Your task to perform on an android device: Open Google Chrome and open the bookmarks view Image 0: 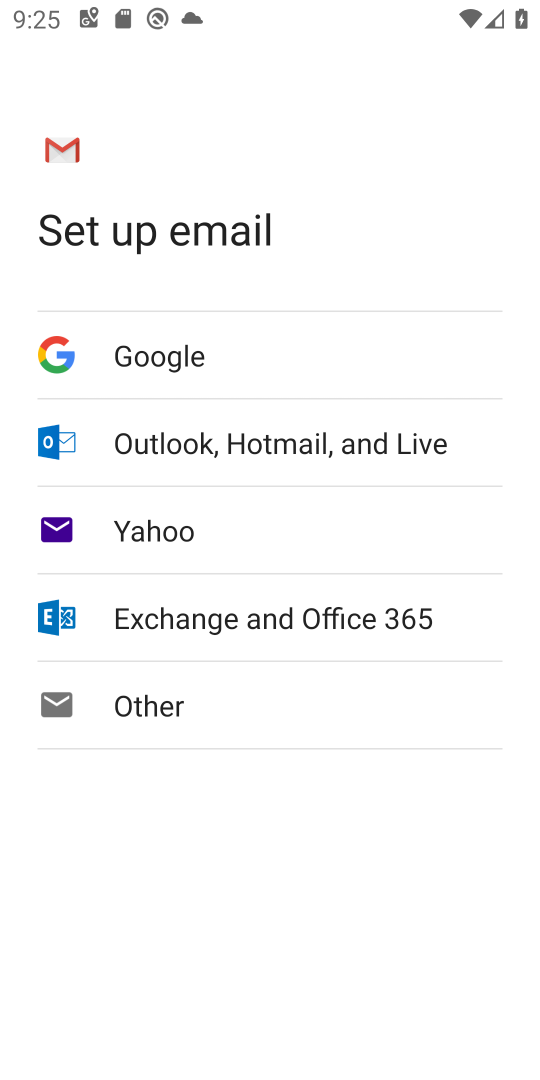
Step 0: press home button
Your task to perform on an android device: Open Google Chrome and open the bookmarks view Image 1: 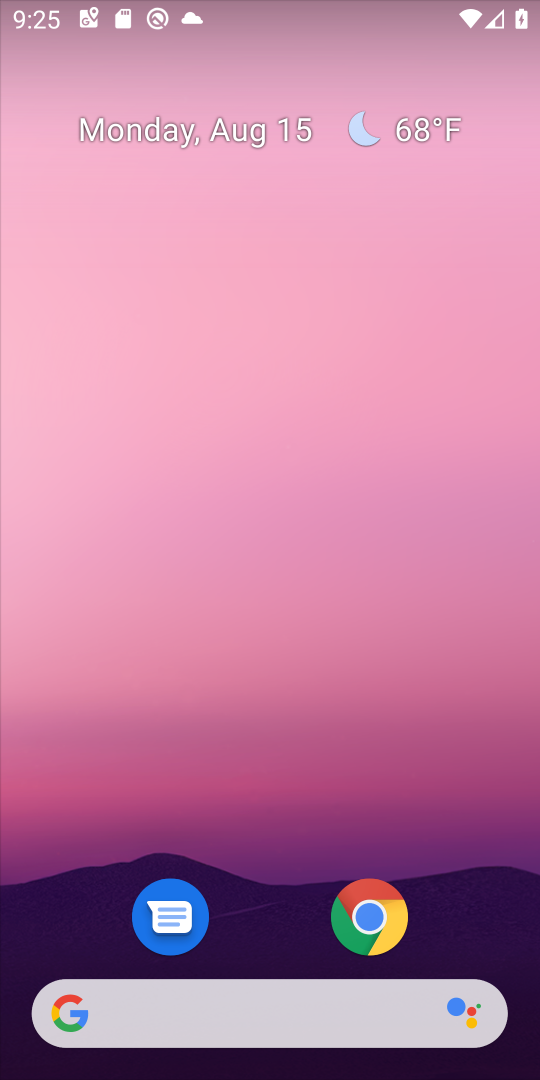
Step 1: click (375, 917)
Your task to perform on an android device: Open Google Chrome and open the bookmarks view Image 2: 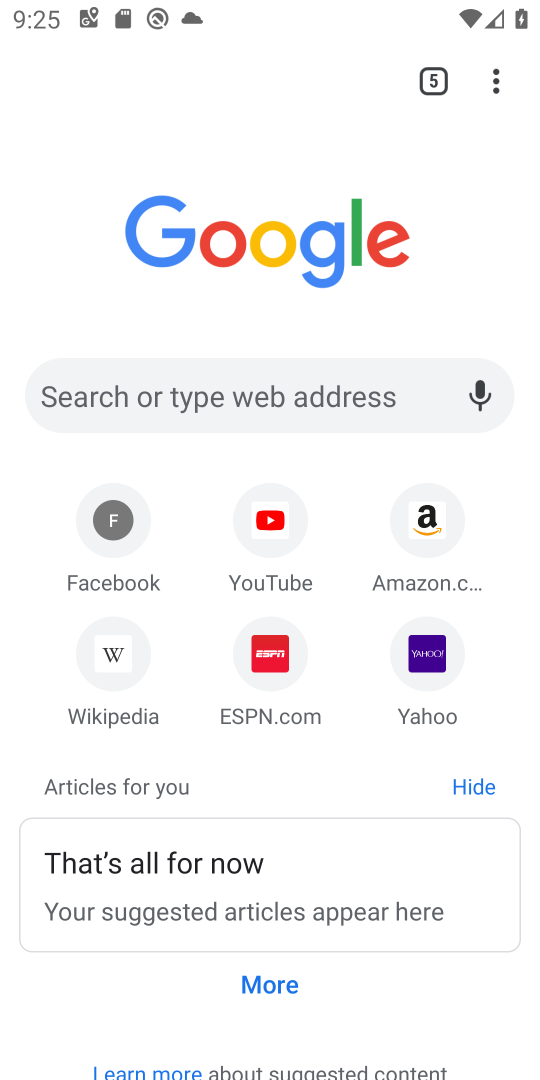
Step 2: click (499, 78)
Your task to perform on an android device: Open Google Chrome and open the bookmarks view Image 3: 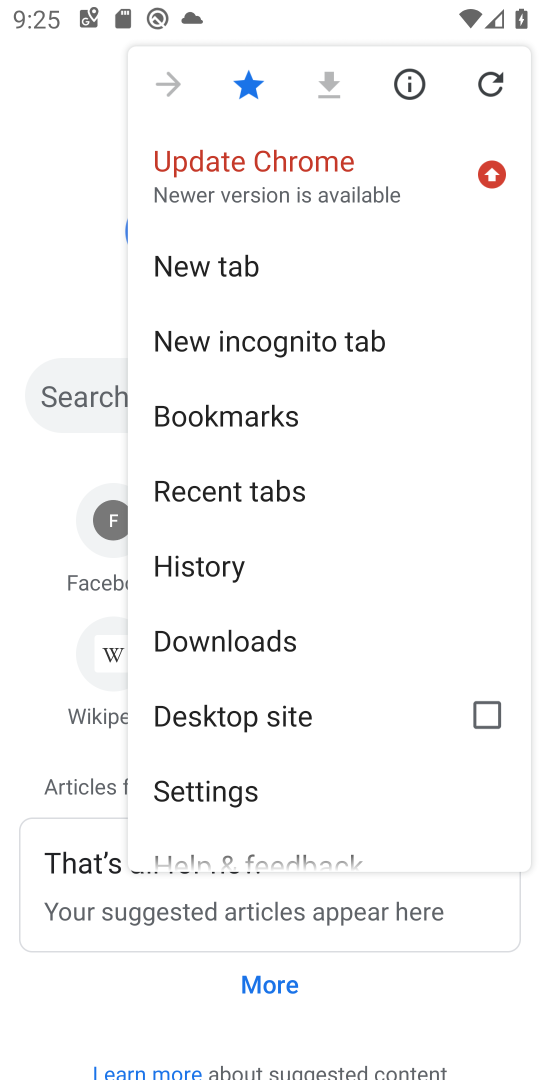
Step 3: click (251, 403)
Your task to perform on an android device: Open Google Chrome and open the bookmarks view Image 4: 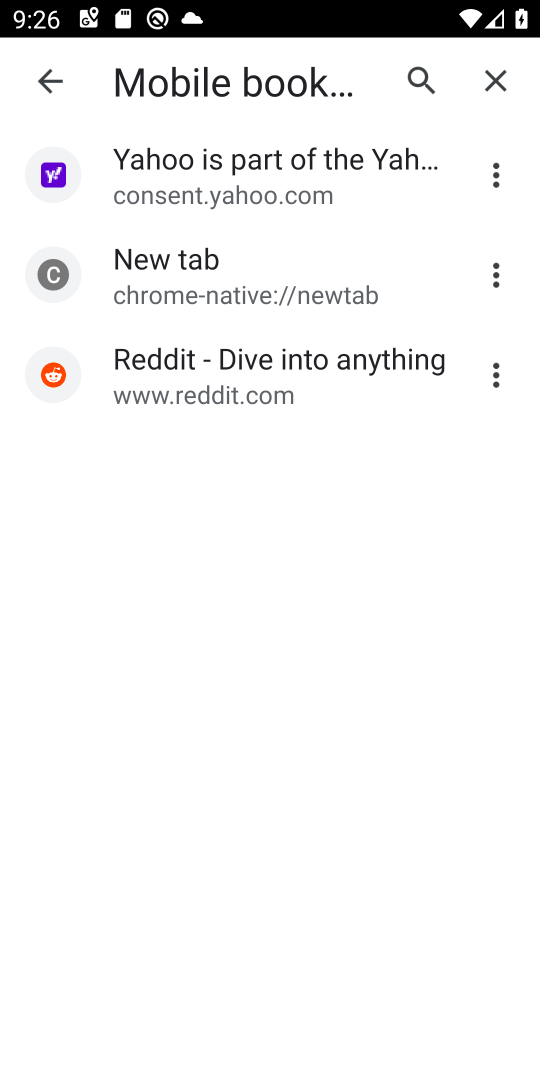
Step 4: task complete